Your task to perform on an android device: change notifications settings Image 0: 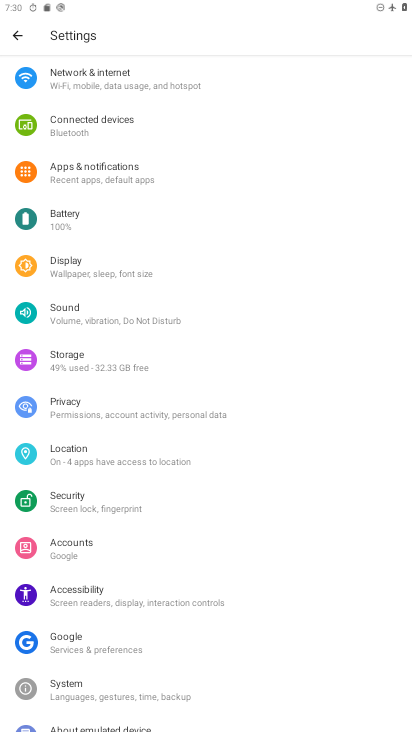
Step 0: press home button
Your task to perform on an android device: change notifications settings Image 1: 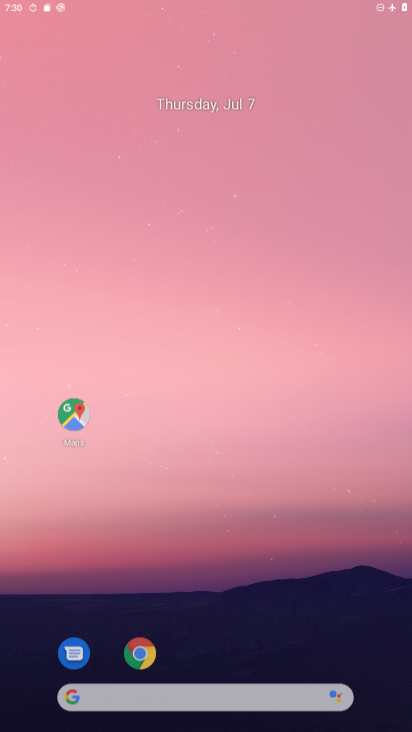
Step 1: drag from (338, 685) to (293, 8)
Your task to perform on an android device: change notifications settings Image 2: 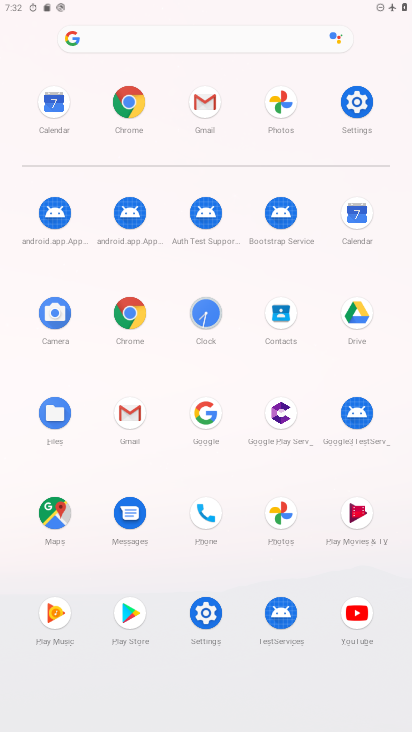
Step 2: click (193, 632)
Your task to perform on an android device: change notifications settings Image 3: 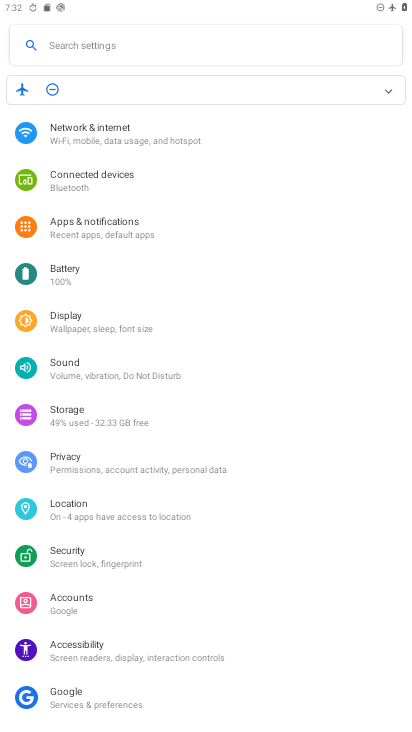
Step 3: click (101, 234)
Your task to perform on an android device: change notifications settings Image 4: 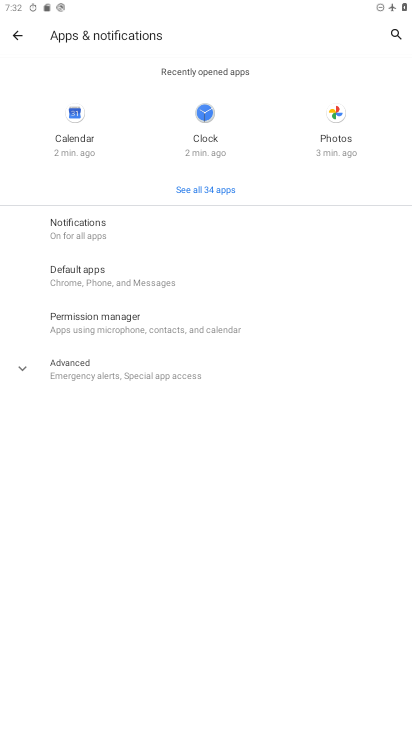
Step 4: click (102, 232)
Your task to perform on an android device: change notifications settings Image 5: 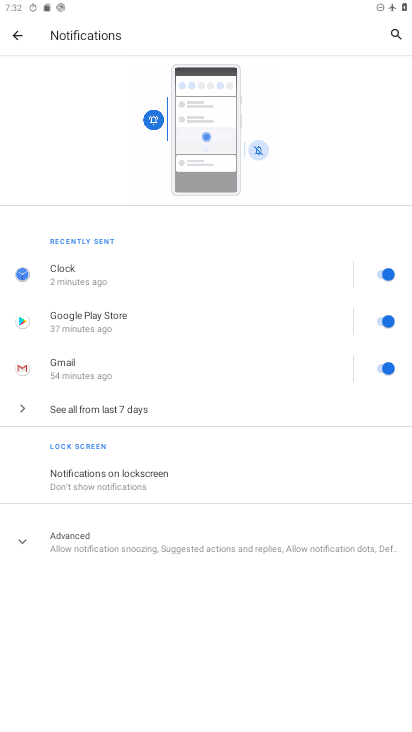
Step 5: click (71, 539)
Your task to perform on an android device: change notifications settings Image 6: 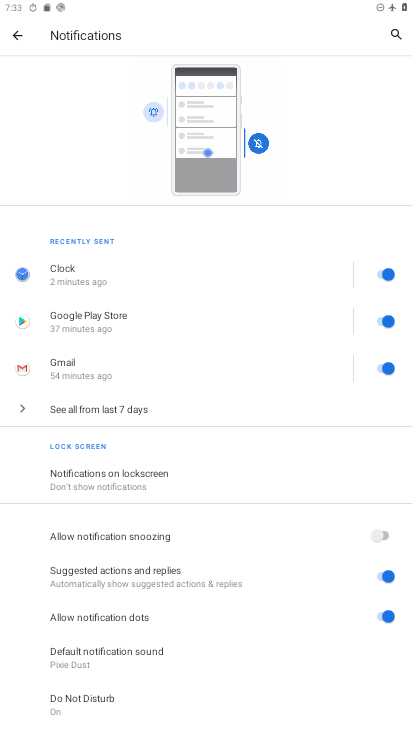
Step 6: task complete